Your task to perform on an android device: turn on improve location accuracy Image 0: 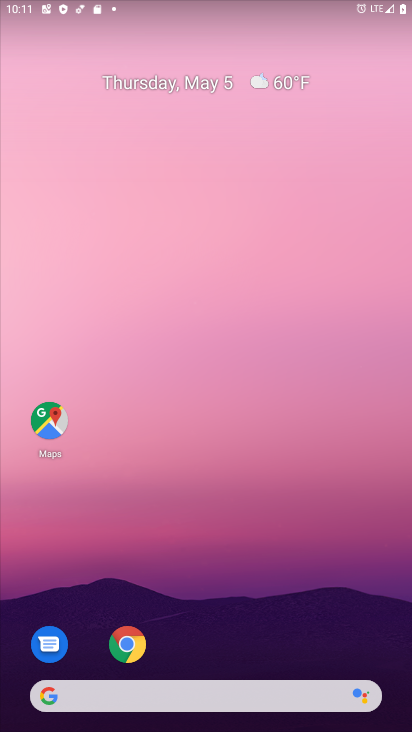
Step 0: drag from (213, 617) to (191, 94)
Your task to perform on an android device: turn on improve location accuracy Image 1: 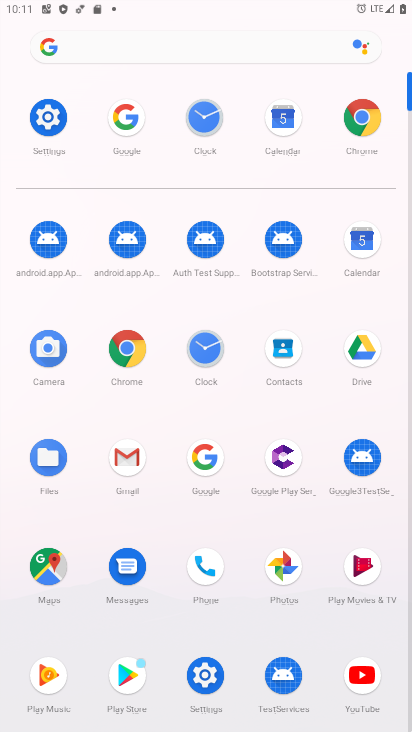
Step 1: click (48, 111)
Your task to perform on an android device: turn on improve location accuracy Image 2: 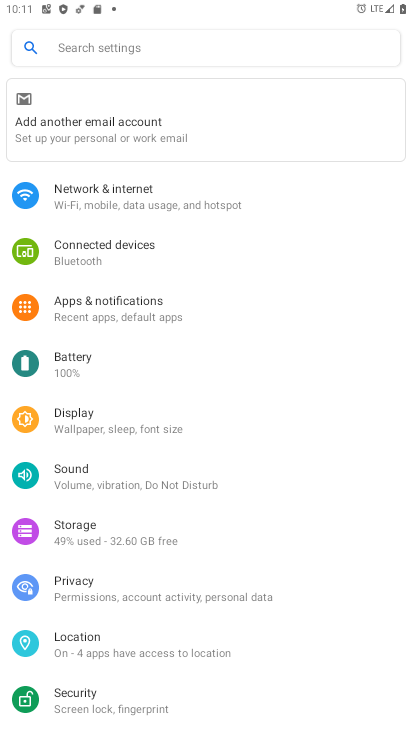
Step 2: click (103, 642)
Your task to perform on an android device: turn on improve location accuracy Image 3: 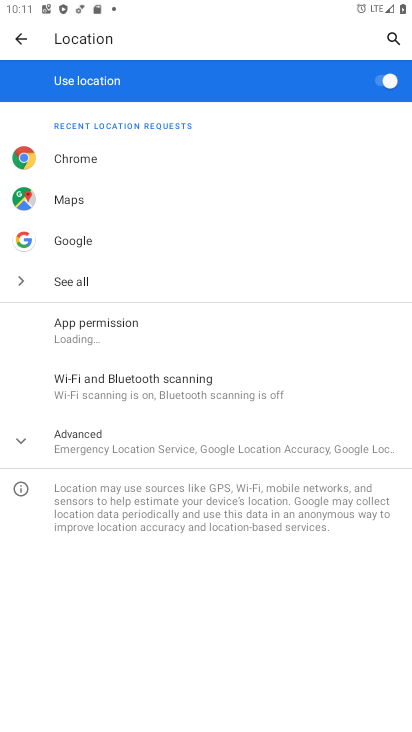
Step 3: click (13, 440)
Your task to perform on an android device: turn on improve location accuracy Image 4: 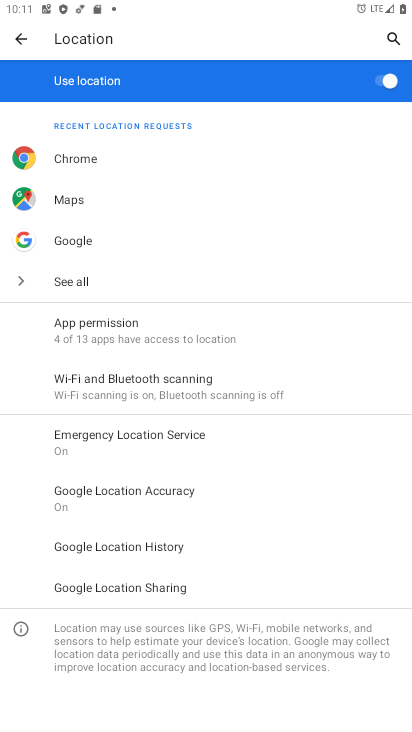
Step 4: click (156, 495)
Your task to perform on an android device: turn on improve location accuracy Image 5: 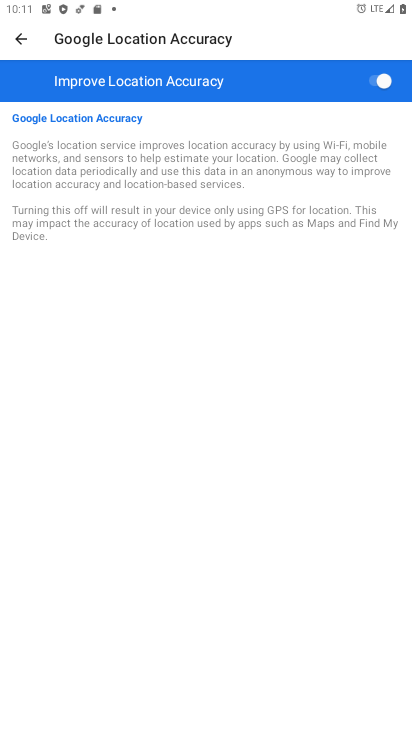
Step 5: task complete